Your task to perform on an android device: turn off sleep mode Image 0: 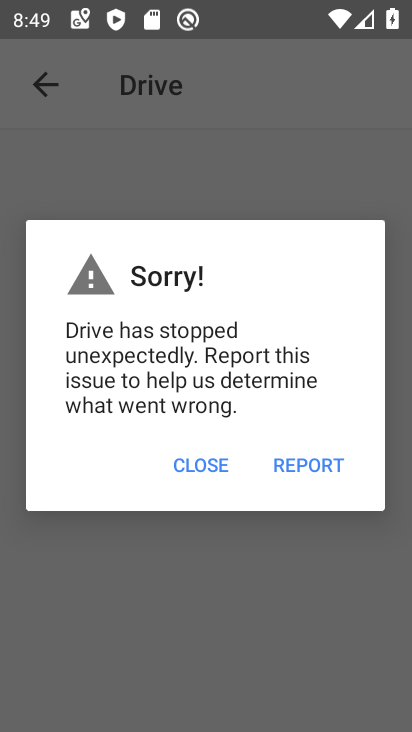
Step 0: press home button
Your task to perform on an android device: turn off sleep mode Image 1: 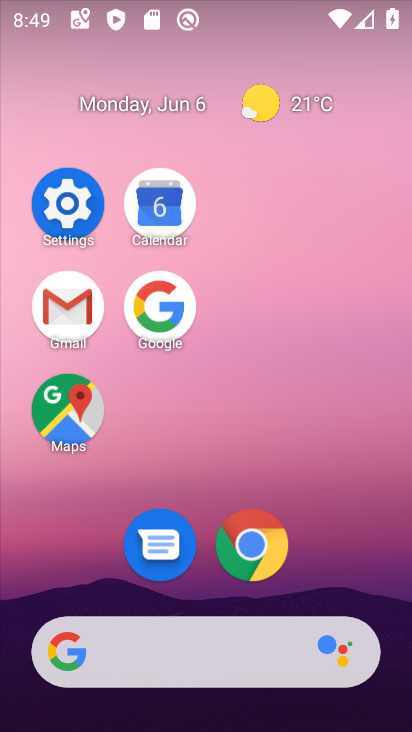
Step 1: click (98, 215)
Your task to perform on an android device: turn off sleep mode Image 2: 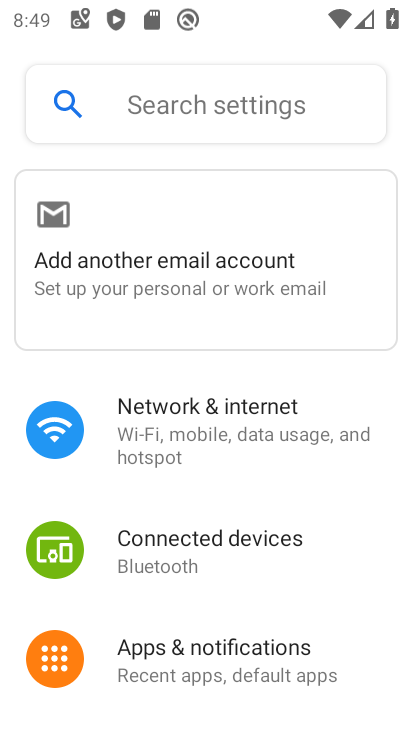
Step 2: drag from (226, 605) to (271, 190)
Your task to perform on an android device: turn off sleep mode Image 3: 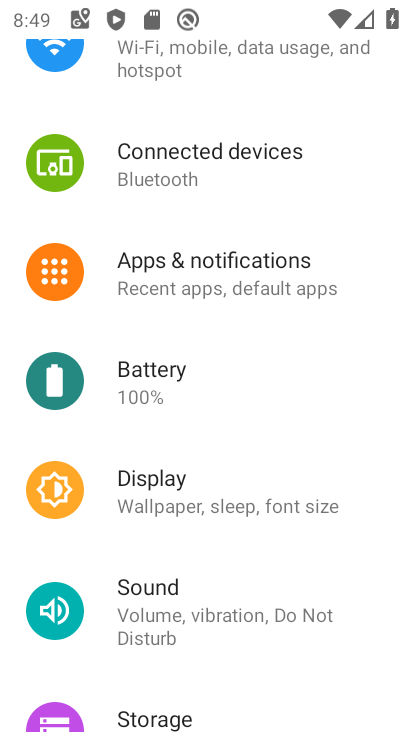
Step 3: click (223, 503)
Your task to perform on an android device: turn off sleep mode Image 4: 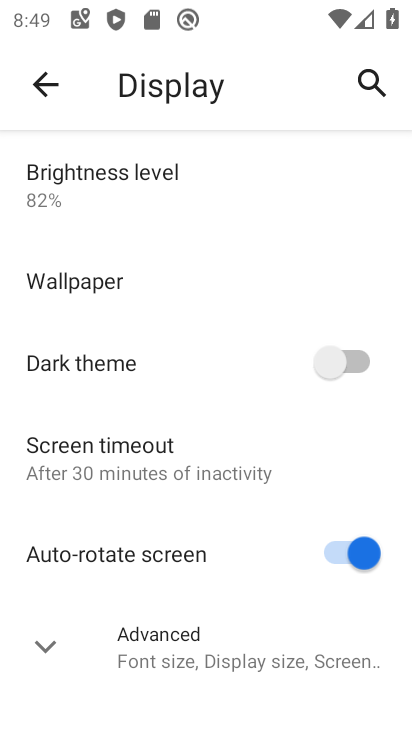
Step 4: click (239, 452)
Your task to perform on an android device: turn off sleep mode Image 5: 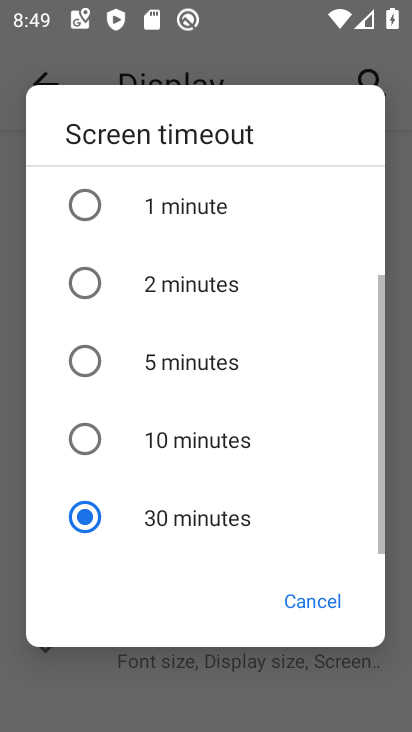
Step 5: task complete